Your task to perform on an android device: Show me the best 1080p monitor on Target.com Image 0: 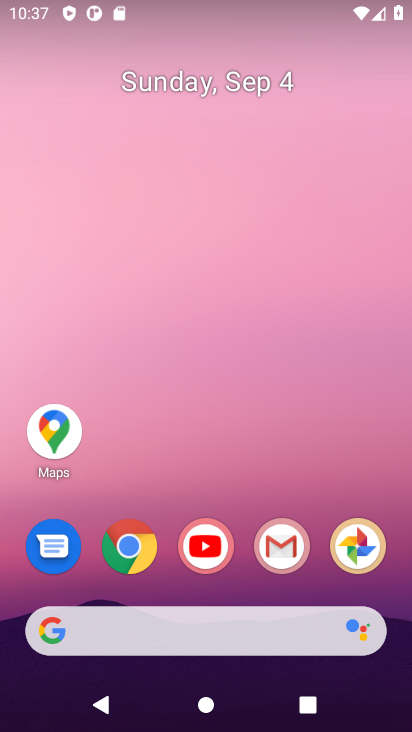
Step 0: click (133, 552)
Your task to perform on an android device: Show me the best 1080p monitor on Target.com Image 1: 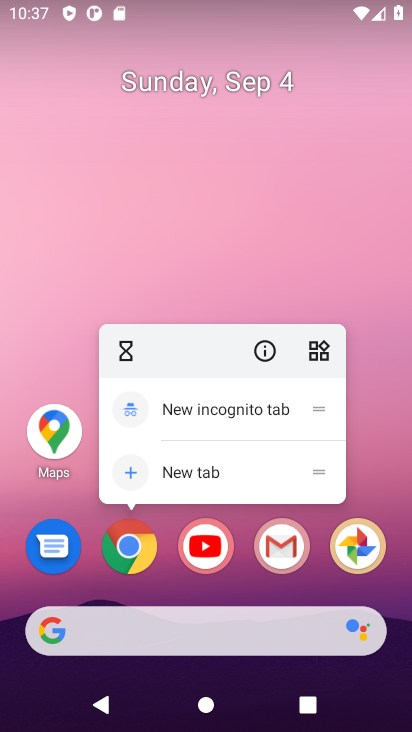
Step 1: click (133, 552)
Your task to perform on an android device: Show me the best 1080p monitor on Target.com Image 2: 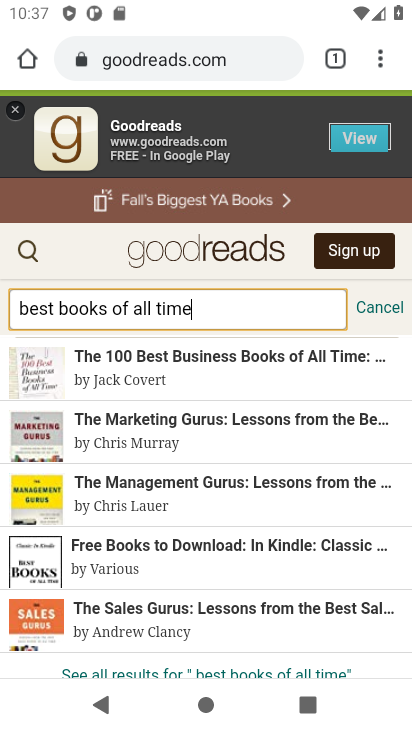
Step 2: click (169, 61)
Your task to perform on an android device: Show me the best 1080p monitor on Target.com Image 3: 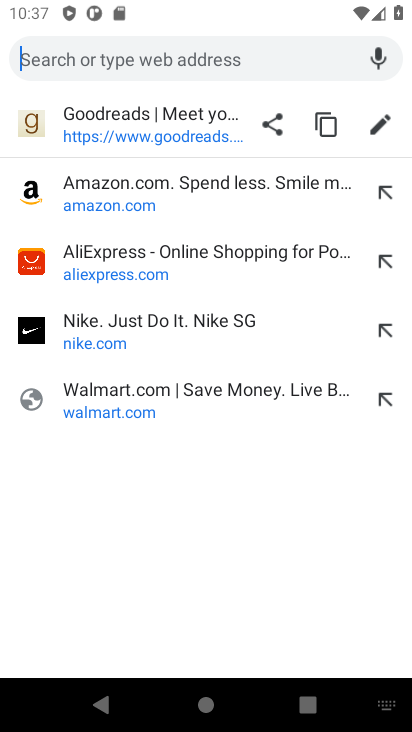
Step 3: type "Target.com"
Your task to perform on an android device: Show me the best 1080p monitor on Target.com Image 4: 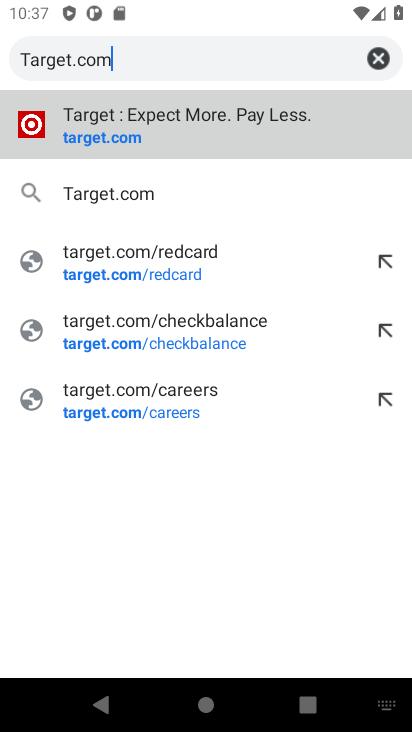
Step 4: click (93, 147)
Your task to perform on an android device: Show me the best 1080p monitor on Target.com Image 5: 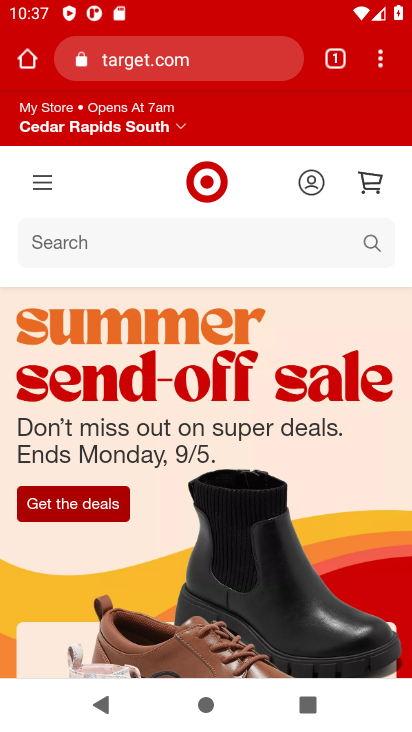
Step 5: click (359, 237)
Your task to perform on an android device: Show me the best 1080p monitor on Target.com Image 6: 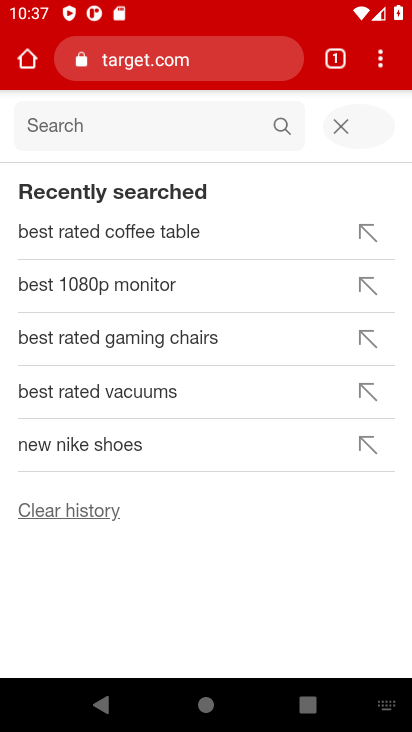
Step 6: type "best 1080p monitor"
Your task to perform on an android device: Show me the best 1080p monitor on Target.com Image 7: 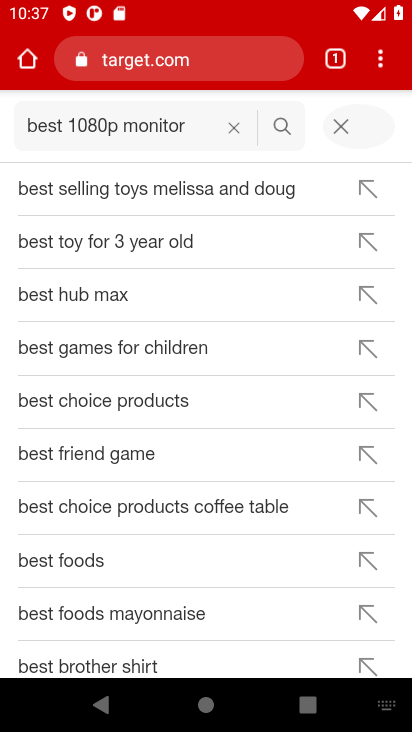
Step 7: click (271, 123)
Your task to perform on an android device: Show me the best 1080p monitor on Target.com Image 8: 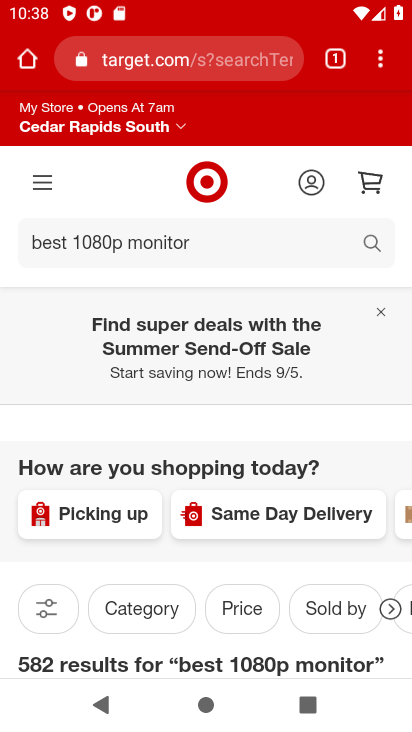
Step 8: task complete